Your task to perform on an android device: toggle sleep mode Image 0: 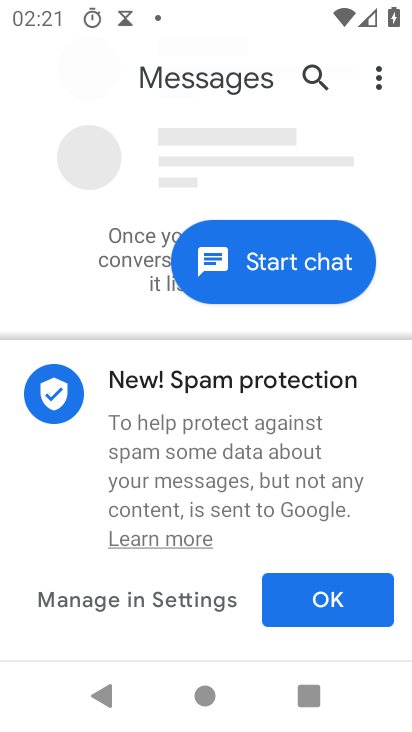
Step 0: drag from (346, 541) to (235, 70)
Your task to perform on an android device: toggle sleep mode Image 1: 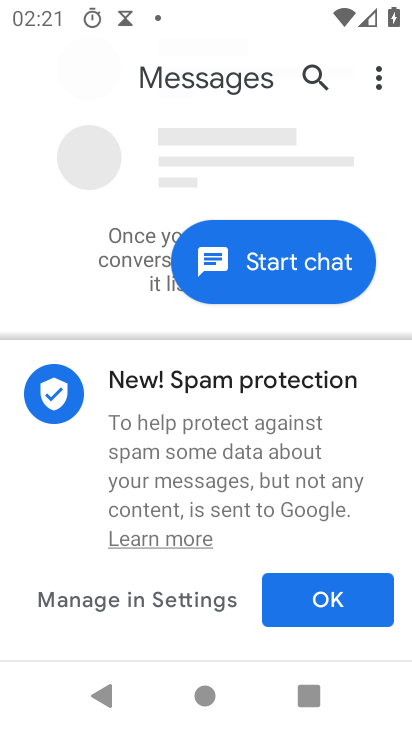
Step 1: press home button
Your task to perform on an android device: toggle sleep mode Image 2: 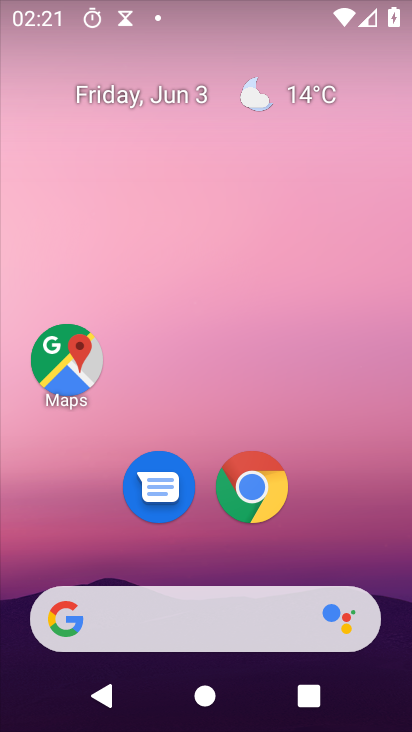
Step 2: drag from (303, 392) to (147, 27)
Your task to perform on an android device: toggle sleep mode Image 3: 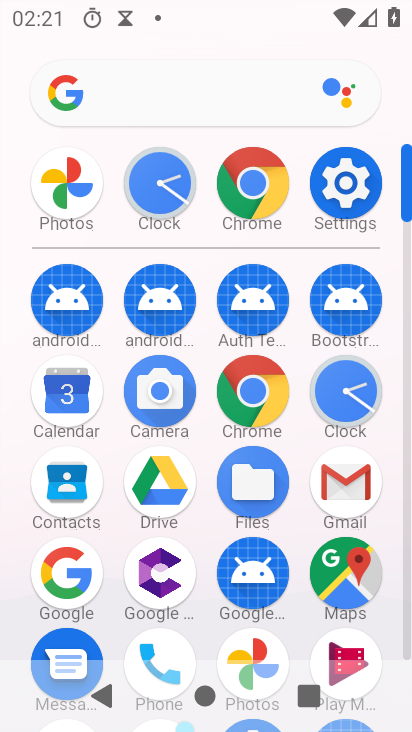
Step 3: click (354, 175)
Your task to perform on an android device: toggle sleep mode Image 4: 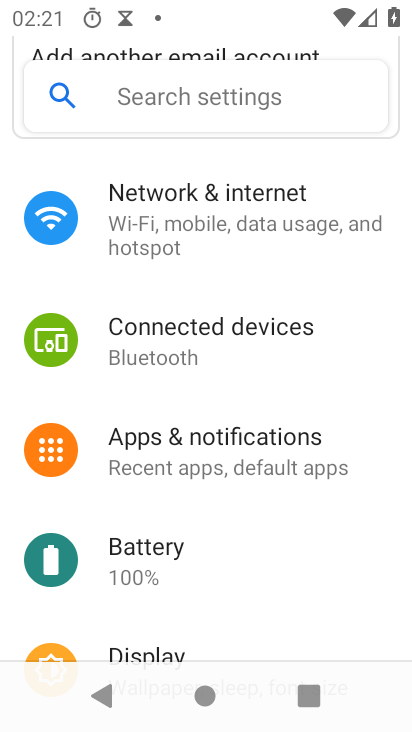
Step 4: click (219, 634)
Your task to perform on an android device: toggle sleep mode Image 5: 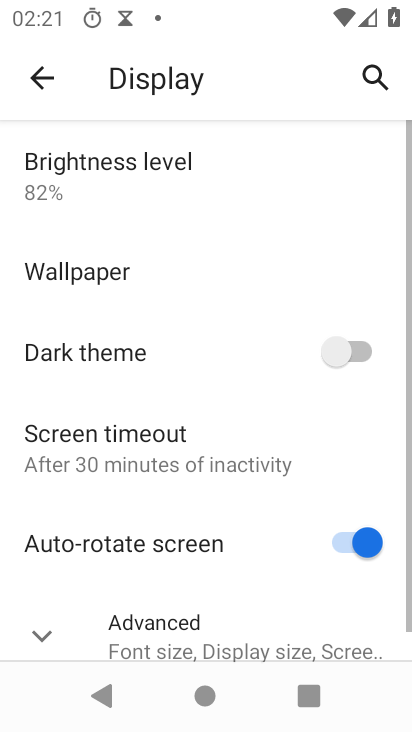
Step 5: task complete